Your task to perform on an android device: Open location settings Image 0: 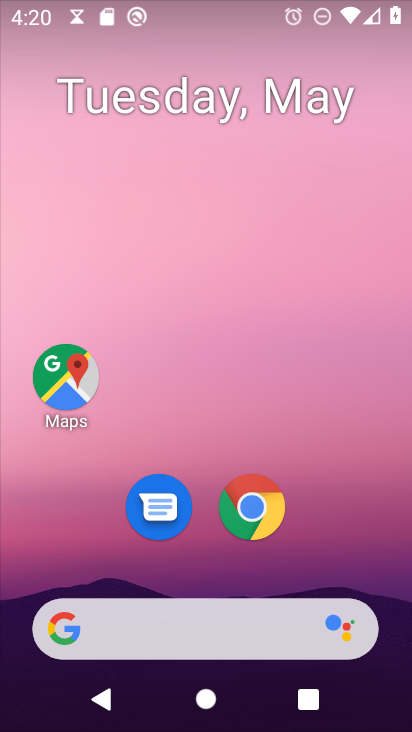
Step 0: drag from (218, 581) to (198, 157)
Your task to perform on an android device: Open location settings Image 1: 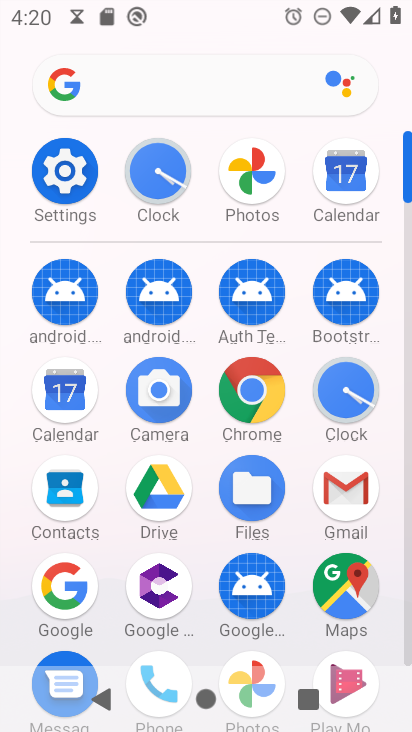
Step 1: click (68, 177)
Your task to perform on an android device: Open location settings Image 2: 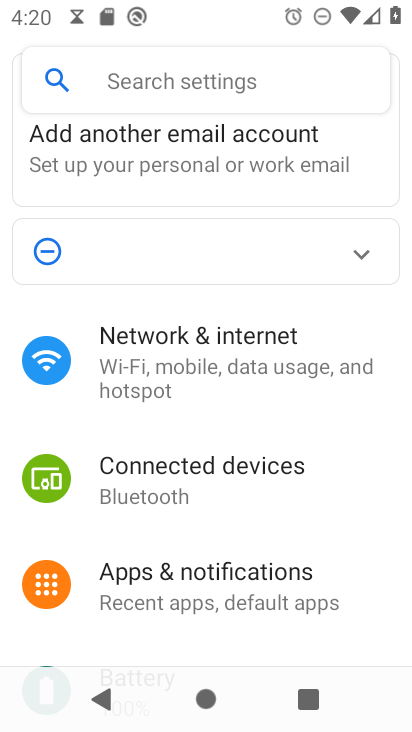
Step 2: drag from (182, 546) to (164, 347)
Your task to perform on an android device: Open location settings Image 3: 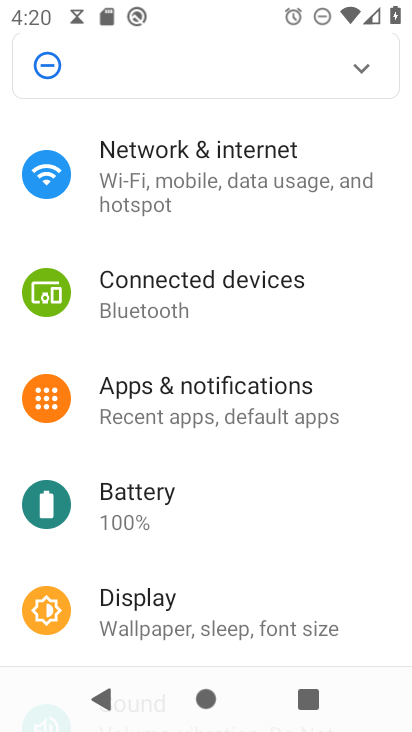
Step 3: drag from (239, 591) to (231, 370)
Your task to perform on an android device: Open location settings Image 4: 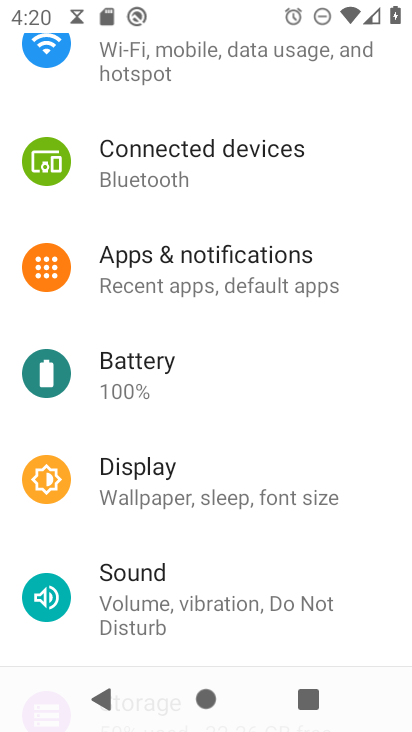
Step 4: drag from (280, 587) to (267, 337)
Your task to perform on an android device: Open location settings Image 5: 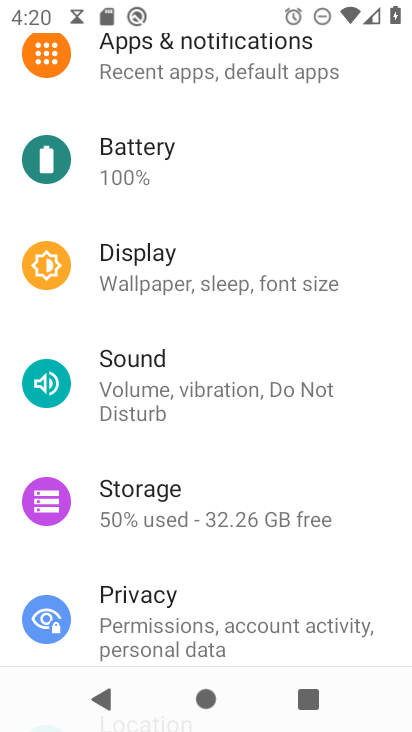
Step 5: drag from (261, 591) to (236, 396)
Your task to perform on an android device: Open location settings Image 6: 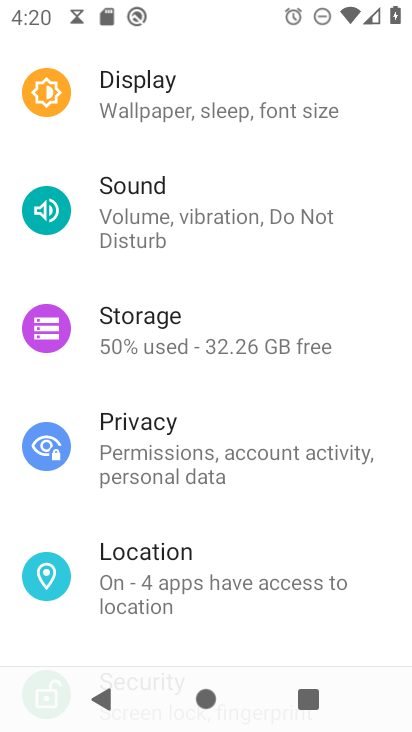
Step 6: click (221, 572)
Your task to perform on an android device: Open location settings Image 7: 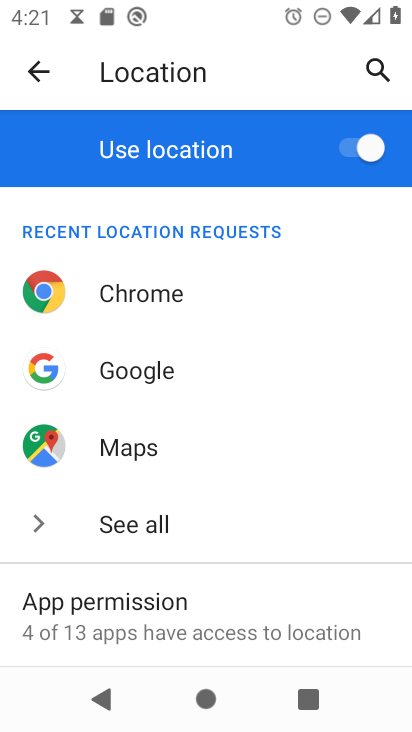
Step 7: task complete